Your task to perform on an android device: open app "Venmo" (install if not already installed) Image 0: 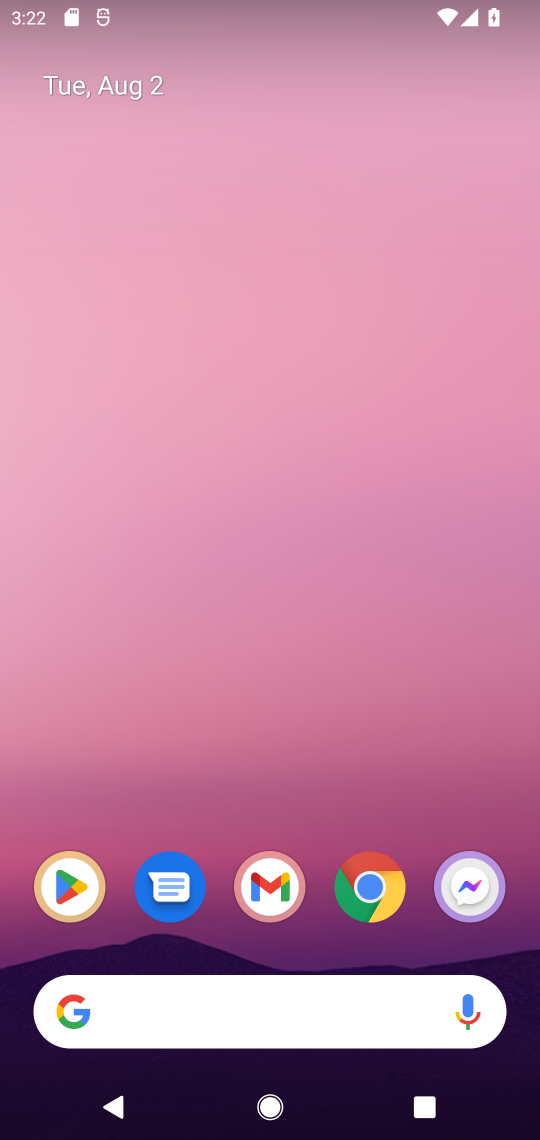
Step 0: click (45, 863)
Your task to perform on an android device: open app "Venmo" (install if not already installed) Image 1: 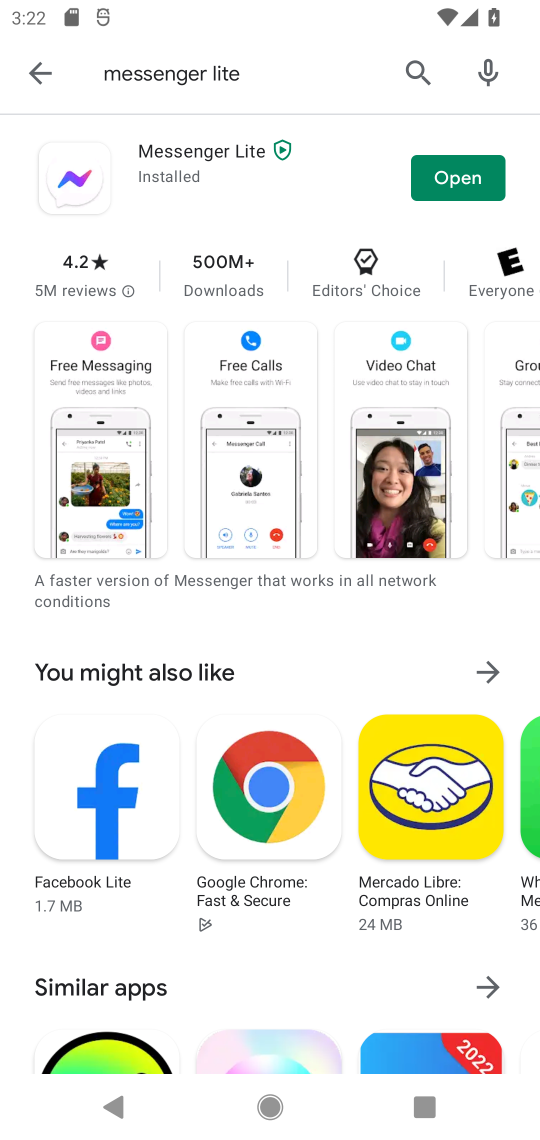
Step 1: click (37, 80)
Your task to perform on an android device: open app "Venmo" (install if not already installed) Image 2: 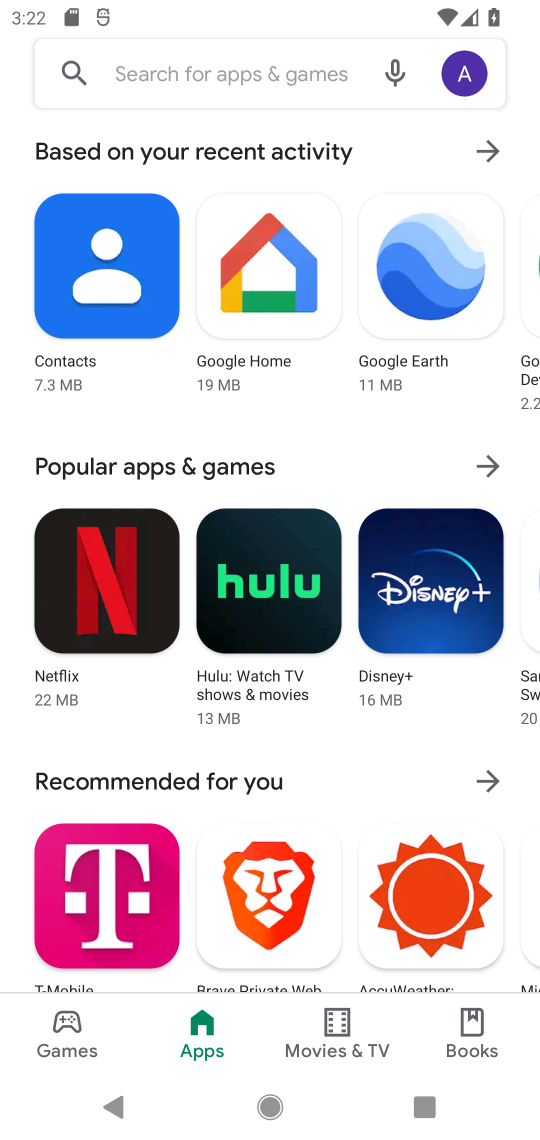
Step 2: click (127, 69)
Your task to perform on an android device: open app "Venmo" (install if not already installed) Image 3: 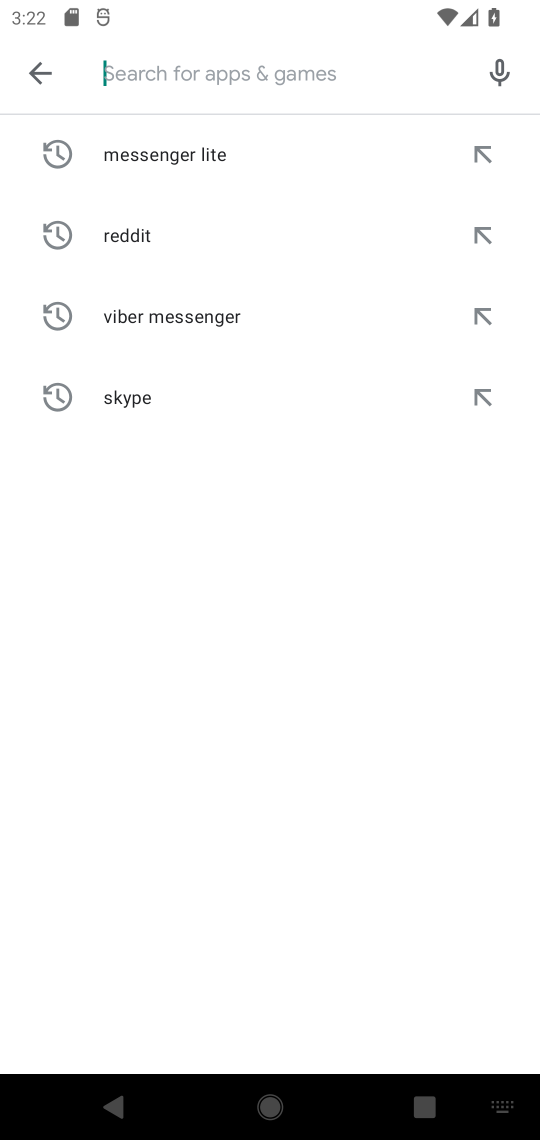
Step 3: type "Venmo"
Your task to perform on an android device: open app "Venmo" (install if not already installed) Image 4: 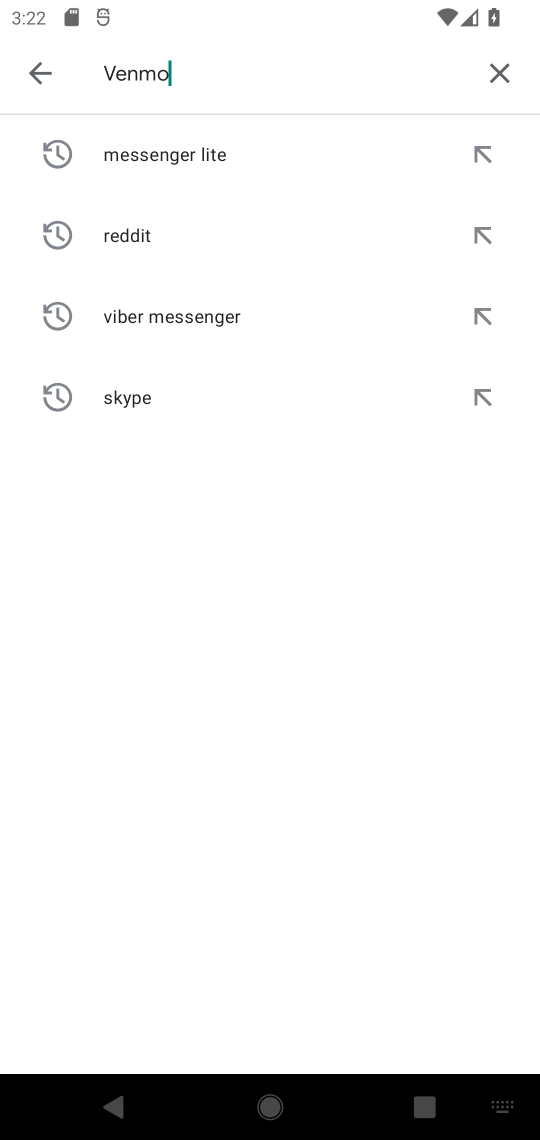
Step 4: type ""
Your task to perform on an android device: open app "Venmo" (install if not already installed) Image 5: 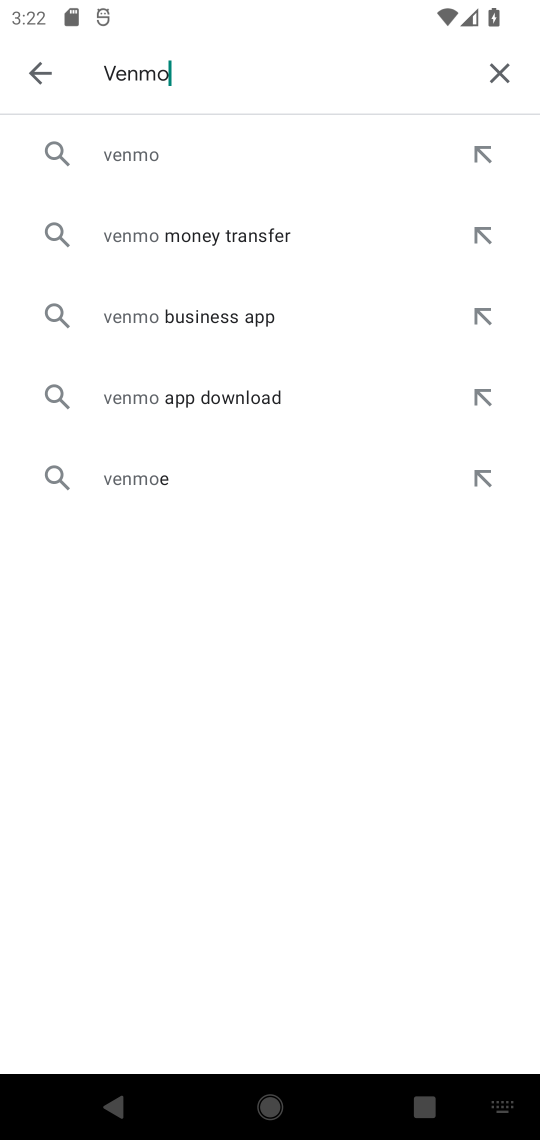
Step 5: click (207, 164)
Your task to perform on an android device: open app "Venmo" (install if not already installed) Image 6: 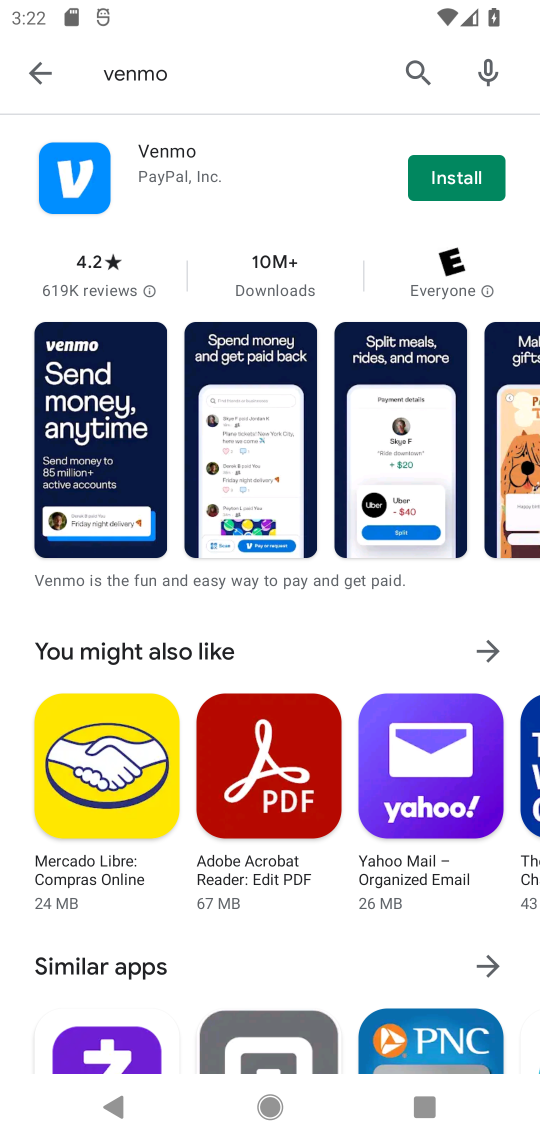
Step 6: click (479, 168)
Your task to perform on an android device: open app "Venmo" (install if not already installed) Image 7: 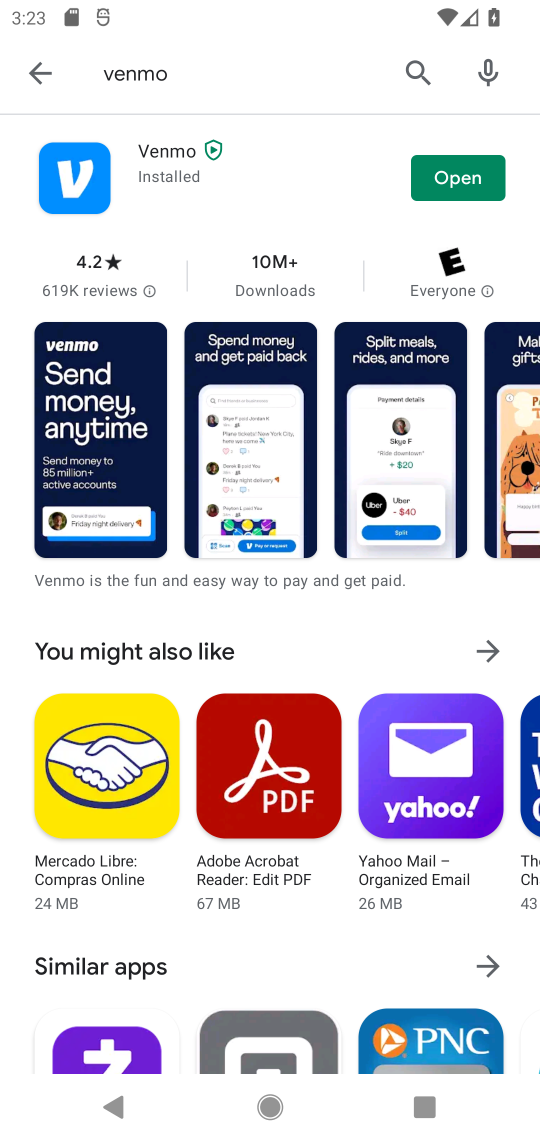
Step 7: task complete